Your task to perform on an android device: find snoozed emails in the gmail app Image 0: 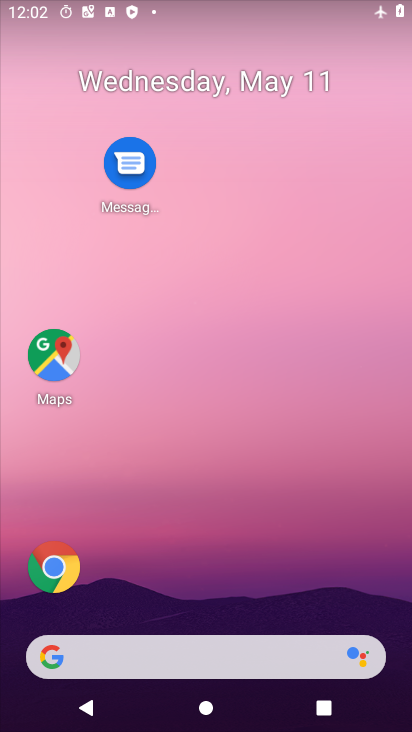
Step 0: drag from (220, 556) to (253, 172)
Your task to perform on an android device: find snoozed emails in the gmail app Image 1: 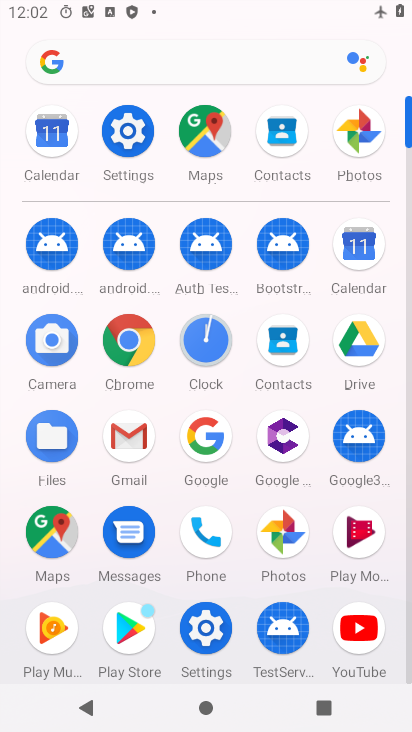
Step 1: click (133, 454)
Your task to perform on an android device: find snoozed emails in the gmail app Image 2: 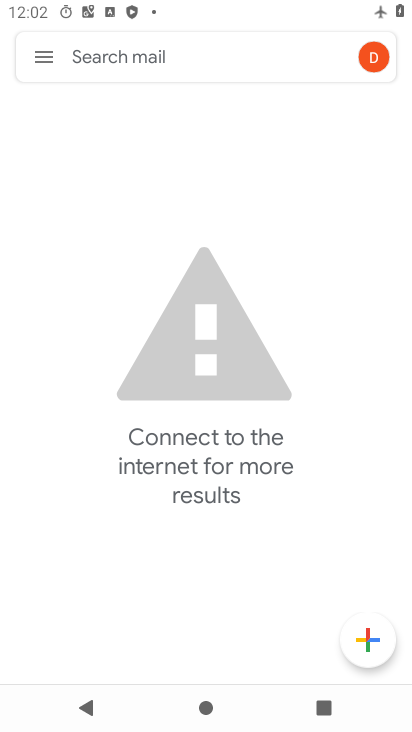
Step 2: click (49, 52)
Your task to perform on an android device: find snoozed emails in the gmail app Image 3: 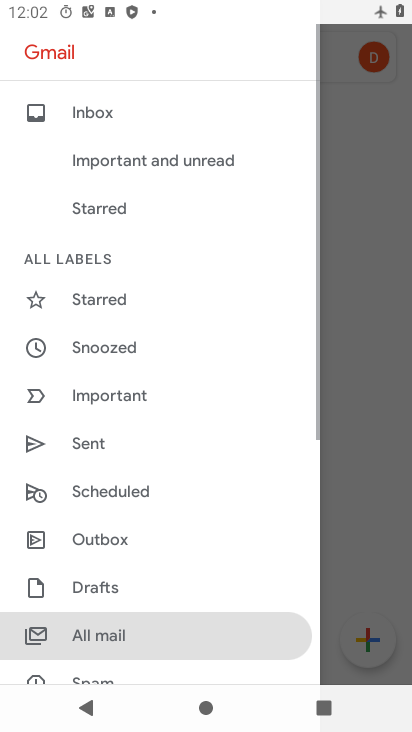
Step 3: click (123, 349)
Your task to perform on an android device: find snoozed emails in the gmail app Image 4: 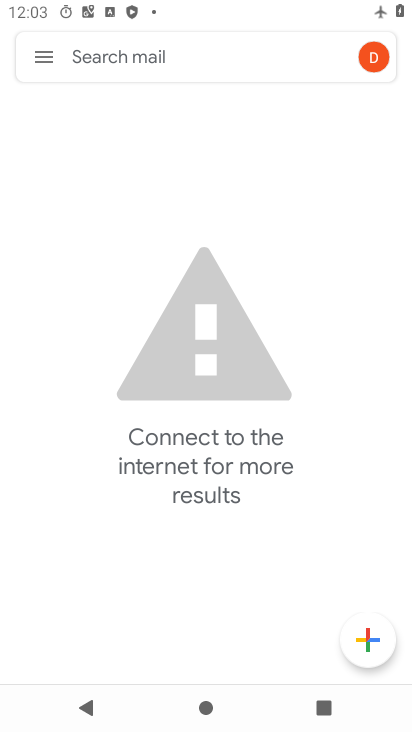
Step 4: task complete